Your task to perform on an android device: What's the weather going to be this weekend? Image 0: 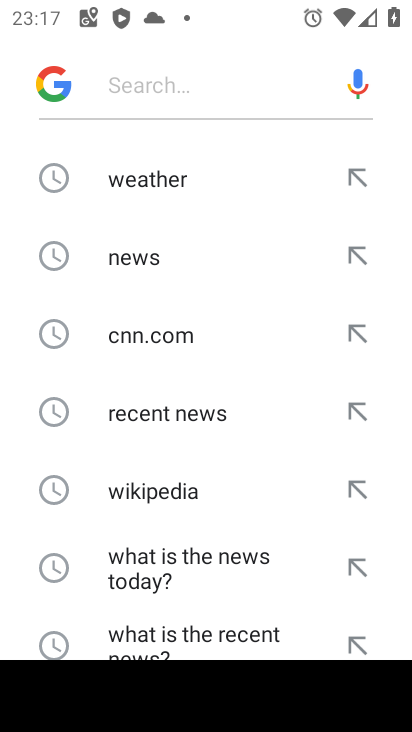
Step 0: press home button
Your task to perform on an android device: What's the weather going to be this weekend? Image 1: 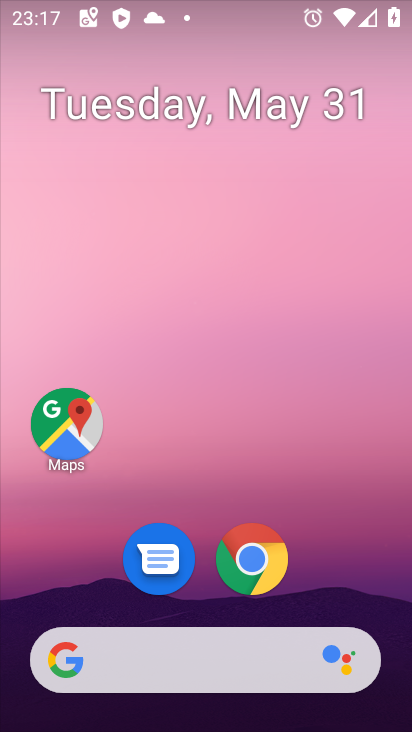
Step 1: drag from (318, 583) to (355, 140)
Your task to perform on an android device: What's the weather going to be this weekend? Image 2: 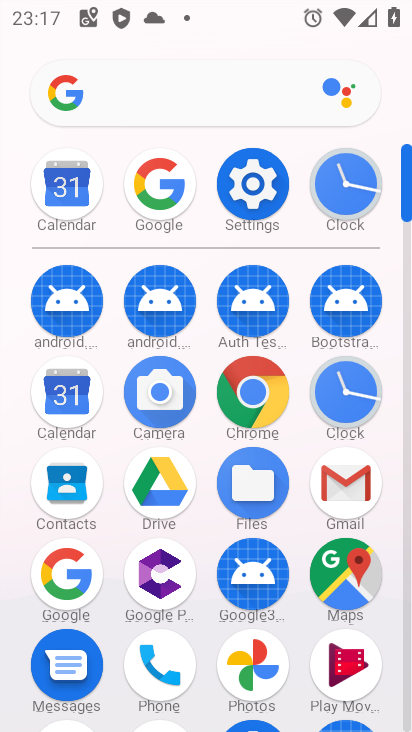
Step 2: click (166, 186)
Your task to perform on an android device: What's the weather going to be this weekend? Image 3: 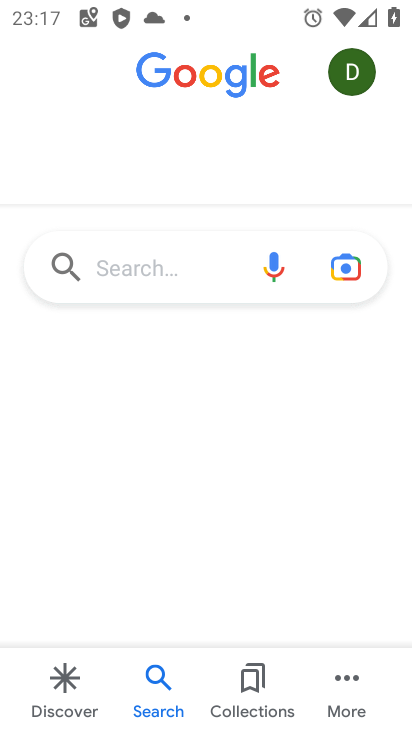
Step 3: click (157, 275)
Your task to perform on an android device: What's the weather going to be this weekend? Image 4: 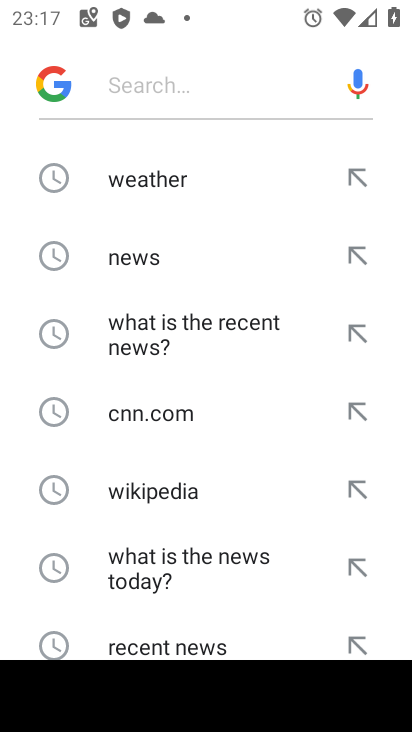
Step 4: drag from (192, 551) to (183, 220)
Your task to perform on an android device: What's the weather going to be this weekend? Image 5: 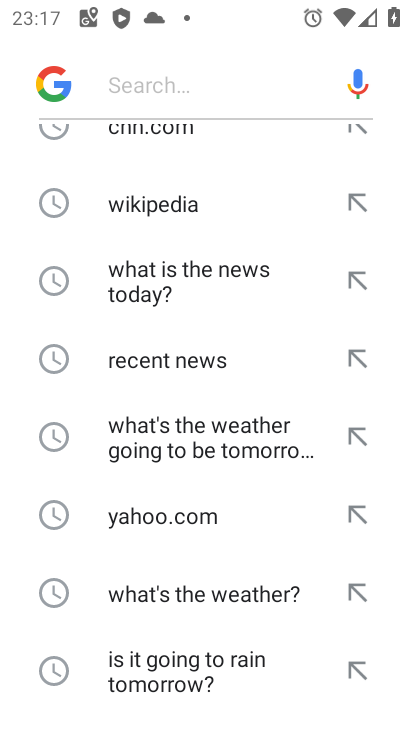
Step 5: drag from (206, 677) to (216, 249)
Your task to perform on an android device: What's the weather going to be this weekend? Image 6: 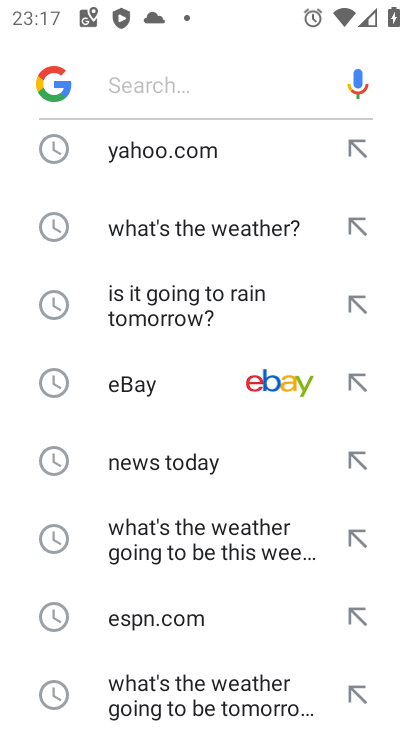
Step 6: click (226, 546)
Your task to perform on an android device: What's the weather going to be this weekend? Image 7: 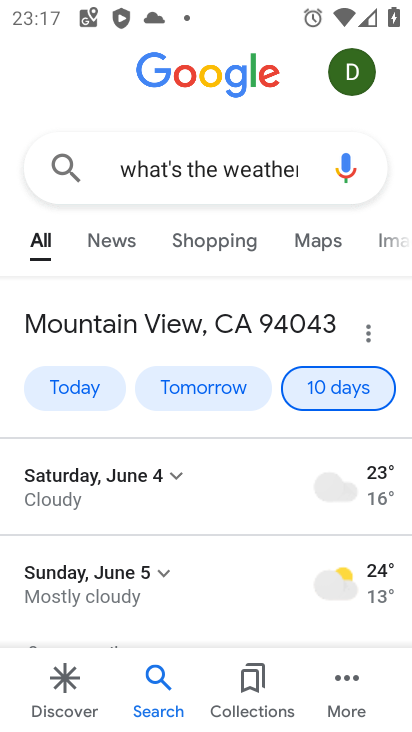
Step 7: task complete